Your task to perform on an android device: toggle airplane mode Image 0: 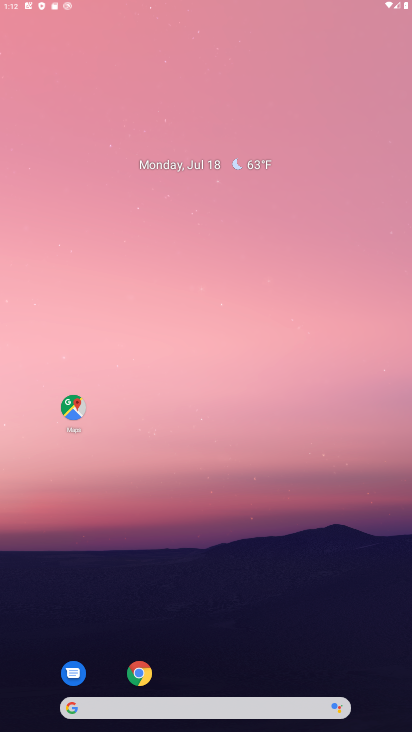
Step 0: click (232, 226)
Your task to perform on an android device: toggle airplane mode Image 1: 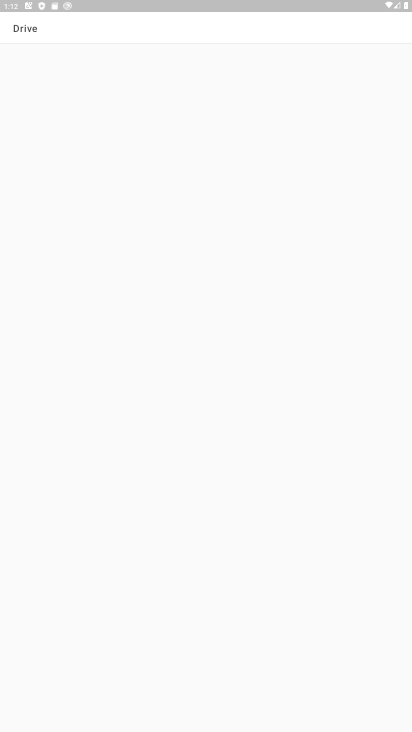
Step 1: press home button
Your task to perform on an android device: toggle airplane mode Image 2: 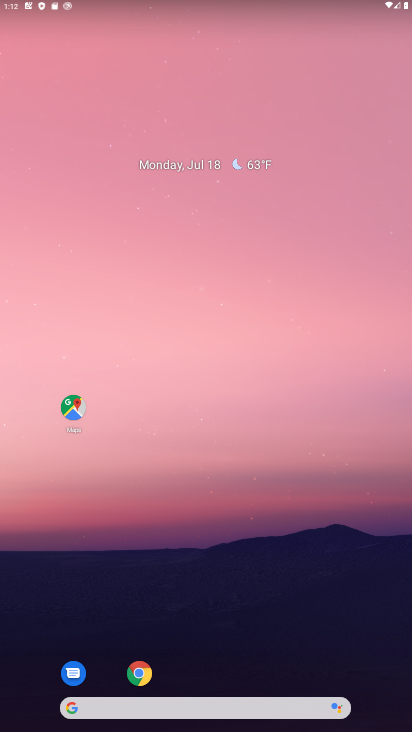
Step 2: drag from (230, 637) to (284, 208)
Your task to perform on an android device: toggle airplane mode Image 3: 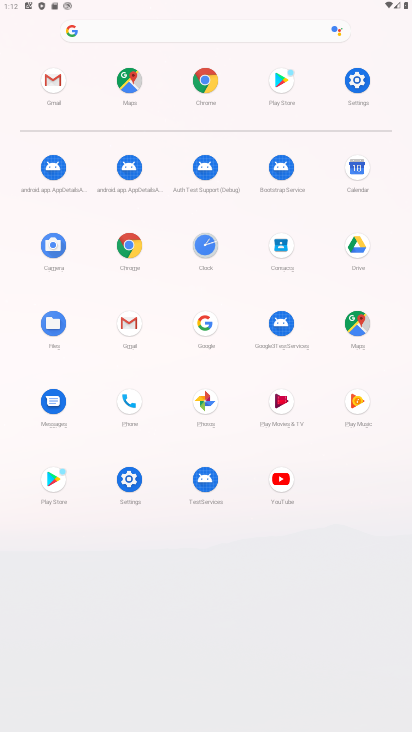
Step 3: click (353, 68)
Your task to perform on an android device: toggle airplane mode Image 4: 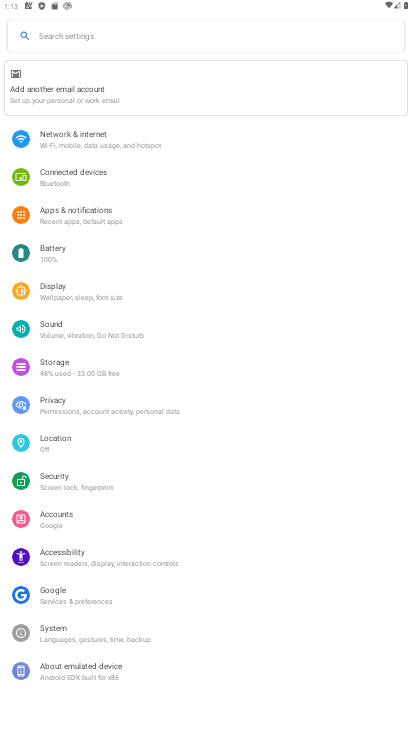
Step 4: click (88, 133)
Your task to perform on an android device: toggle airplane mode Image 5: 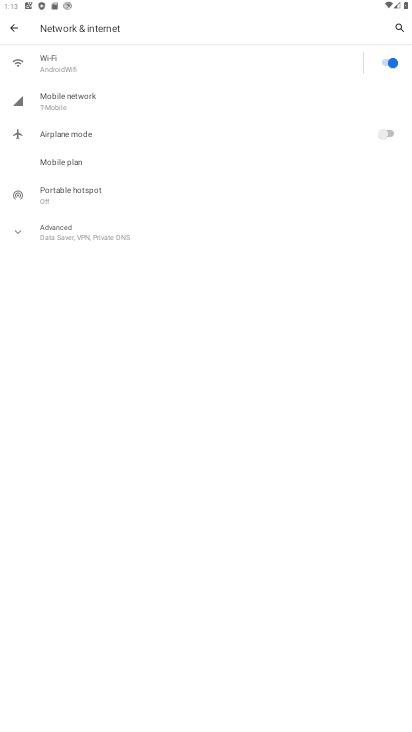
Step 5: click (393, 131)
Your task to perform on an android device: toggle airplane mode Image 6: 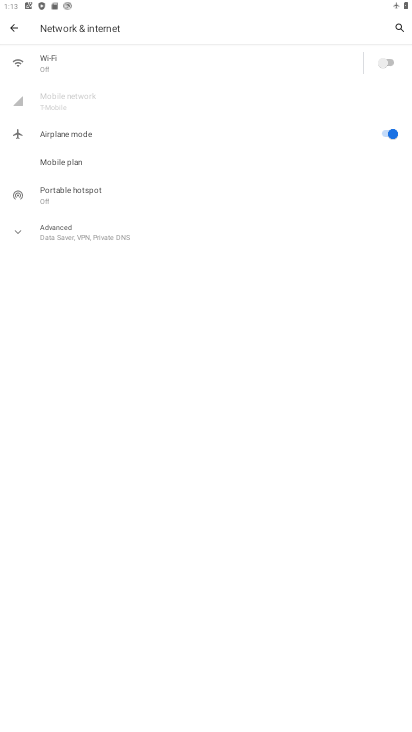
Step 6: task complete